Your task to perform on an android device: move a message to another label in the gmail app Image 0: 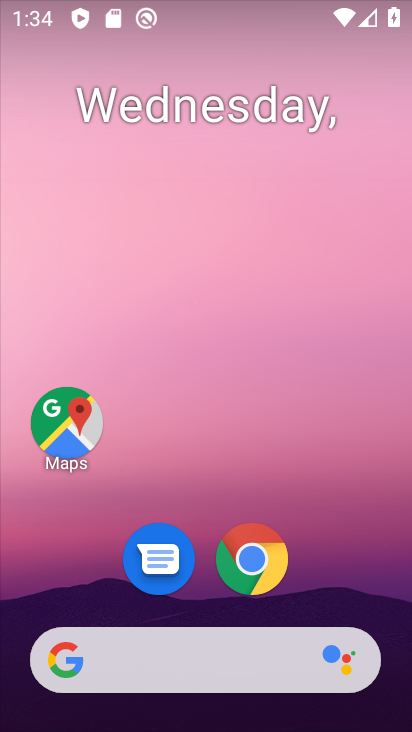
Step 0: drag from (196, 523) to (237, 28)
Your task to perform on an android device: move a message to another label in the gmail app Image 1: 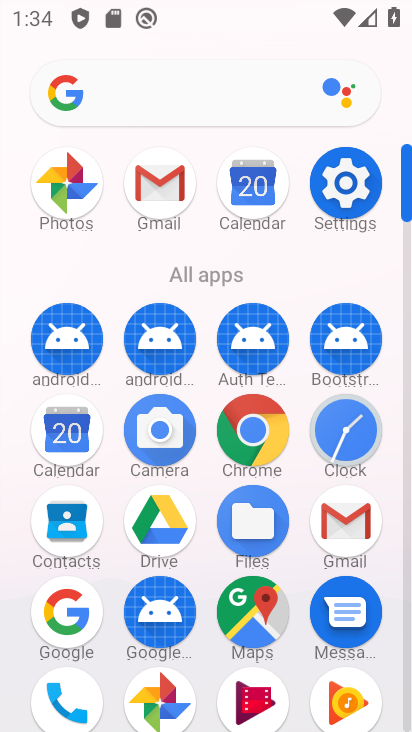
Step 1: click (155, 180)
Your task to perform on an android device: move a message to another label in the gmail app Image 2: 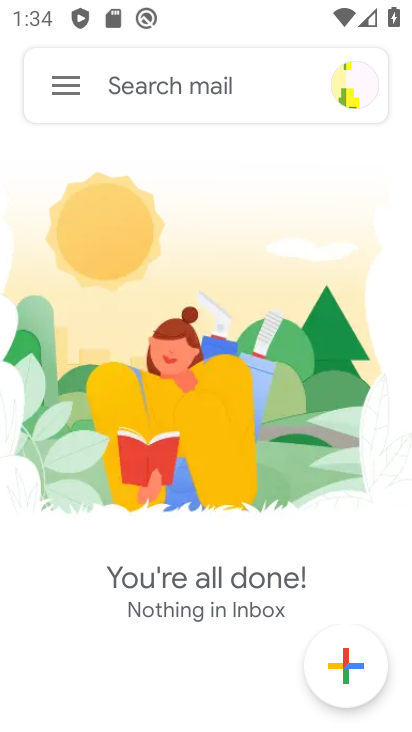
Step 2: task complete